Your task to perform on an android device: turn on showing notifications on the lock screen Image 0: 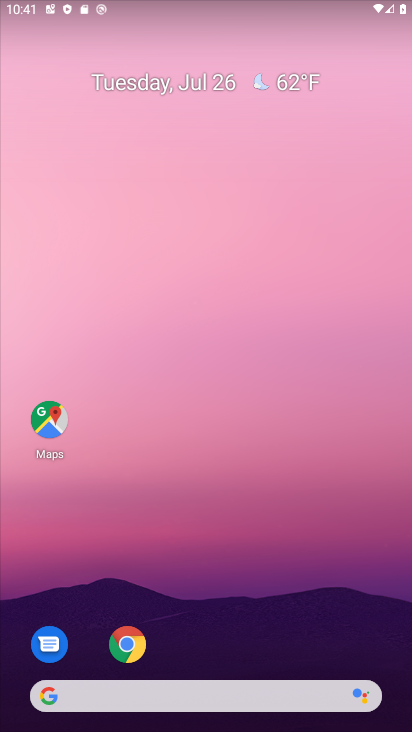
Step 0: drag from (270, 640) to (225, 220)
Your task to perform on an android device: turn on showing notifications on the lock screen Image 1: 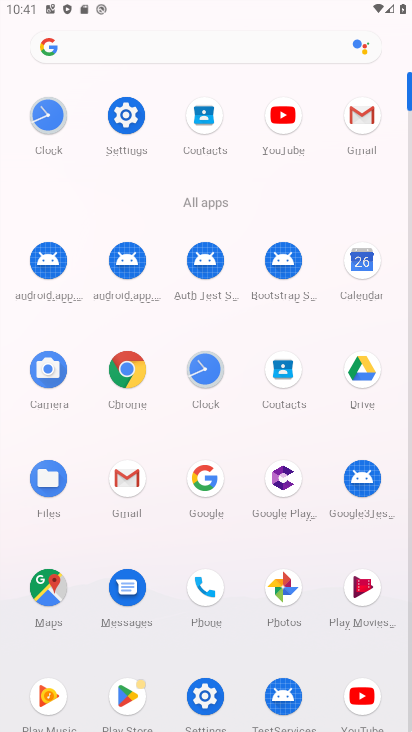
Step 1: click (213, 699)
Your task to perform on an android device: turn on showing notifications on the lock screen Image 2: 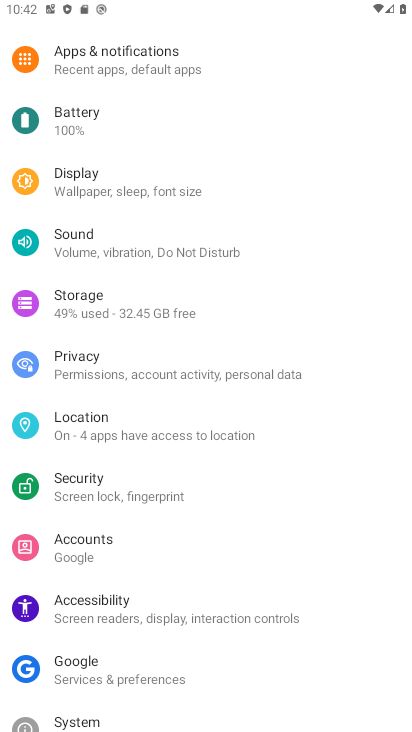
Step 2: click (162, 50)
Your task to perform on an android device: turn on showing notifications on the lock screen Image 3: 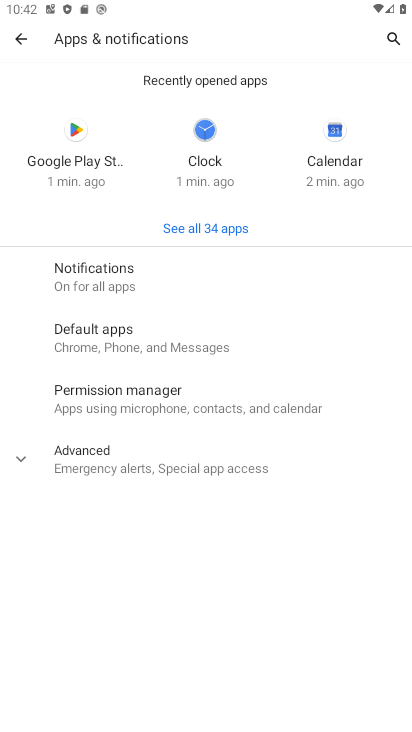
Step 3: click (127, 270)
Your task to perform on an android device: turn on showing notifications on the lock screen Image 4: 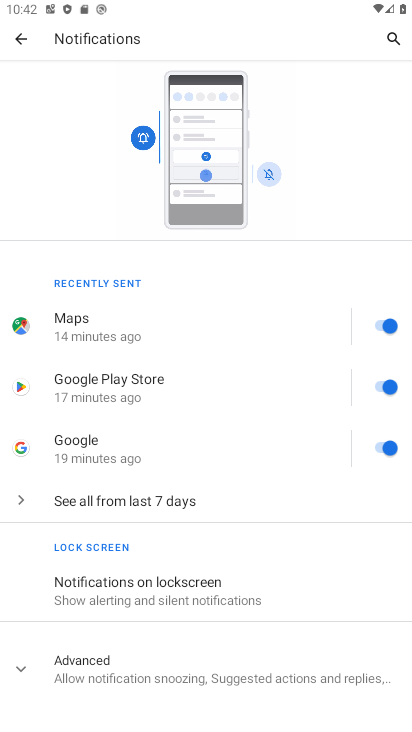
Step 4: click (98, 610)
Your task to perform on an android device: turn on showing notifications on the lock screen Image 5: 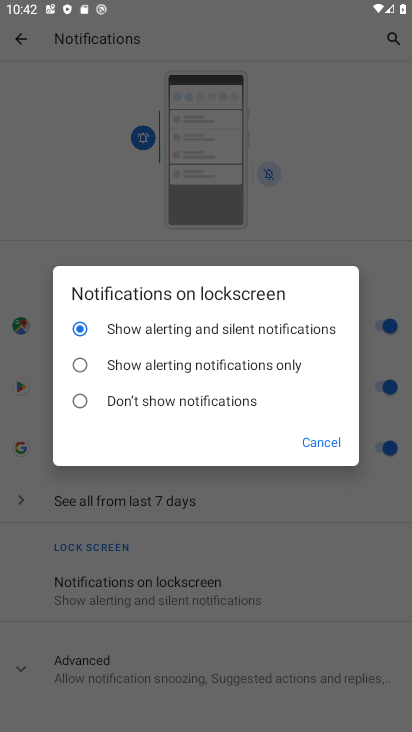
Step 5: task complete